Your task to perform on an android device: Toggle the flashlight Image 0: 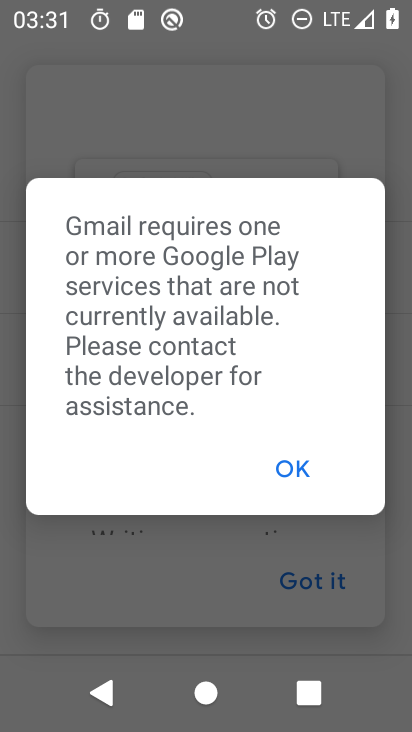
Step 0: press home button
Your task to perform on an android device: Toggle the flashlight Image 1: 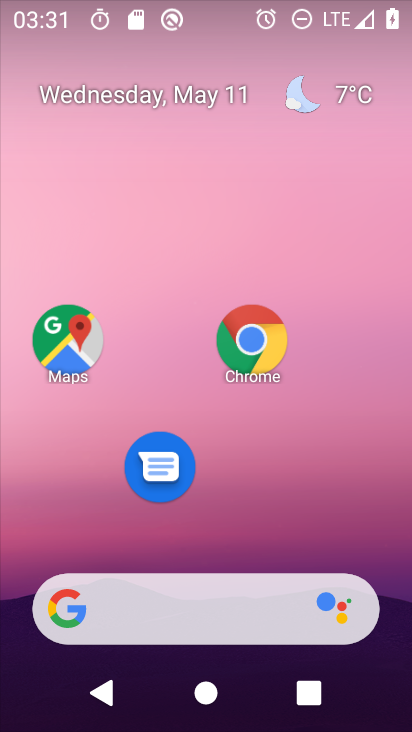
Step 1: task complete